Your task to perform on an android device: open chrome and create a bookmark for the current page Image 0: 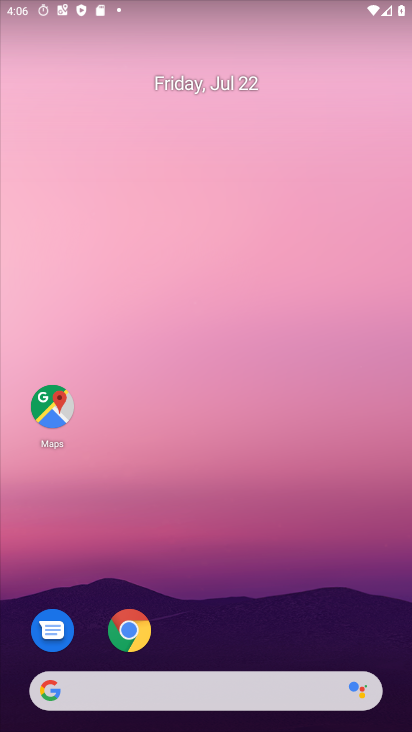
Step 0: drag from (192, 645) to (143, 19)
Your task to perform on an android device: open chrome and create a bookmark for the current page Image 1: 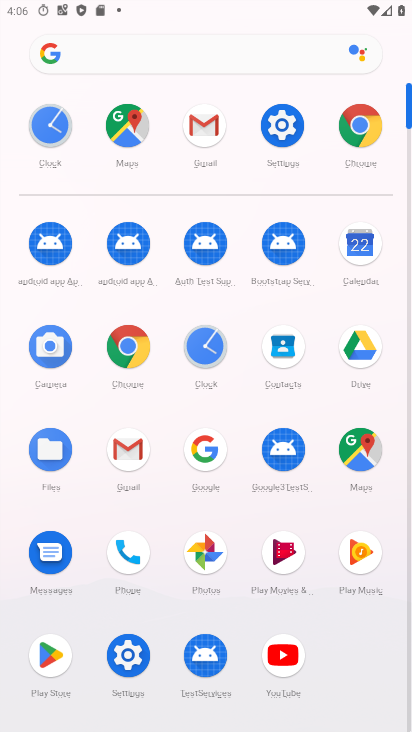
Step 1: click (122, 351)
Your task to perform on an android device: open chrome and create a bookmark for the current page Image 2: 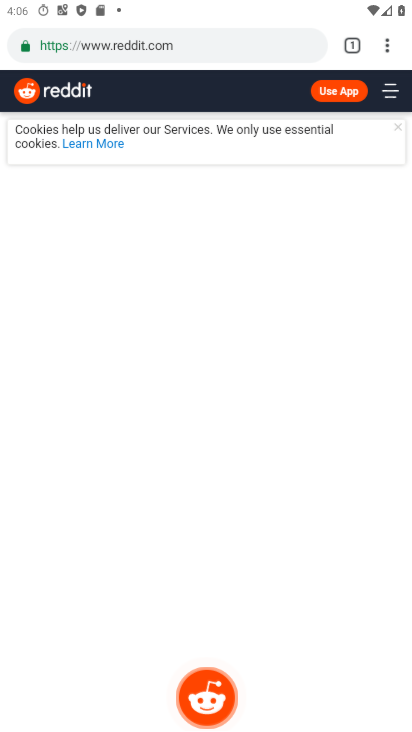
Step 2: task complete